Your task to perform on an android device: add a label to a message in the gmail app Image 0: 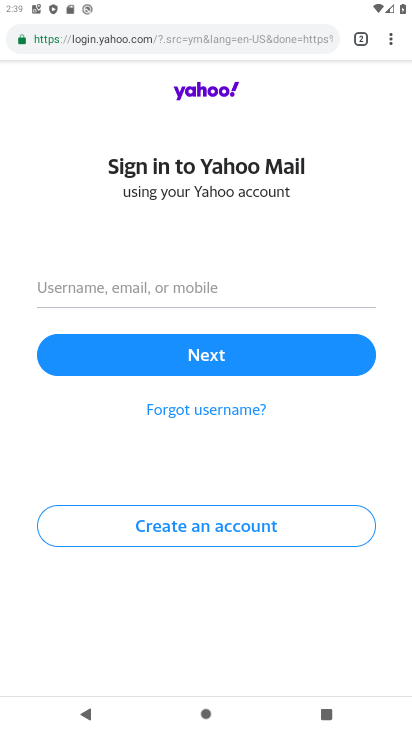
Step 0: press home button
Your task to perform on an android device: add a label to a message in the gmail app Image 1: 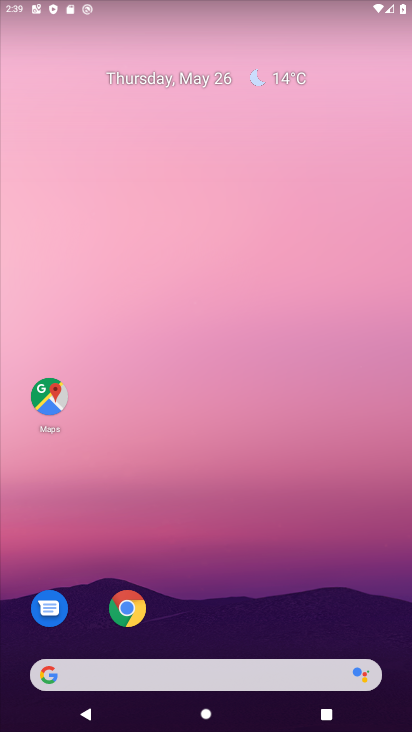
Step 1: drag from (334, 574) to (376, 55)
Your task to perform on an android device: add a label to a message in the gmail app Image 2: 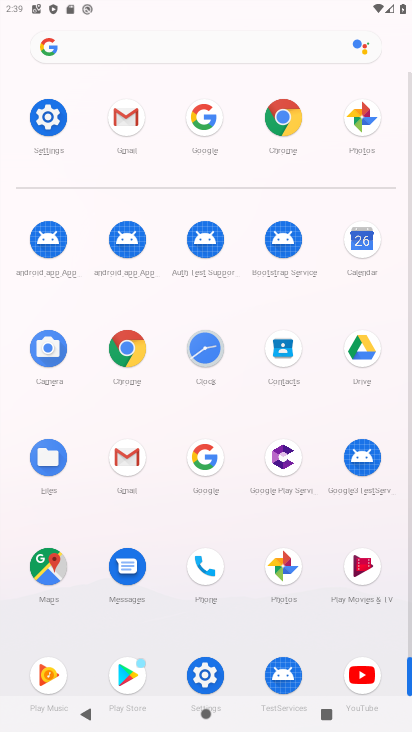
Step 2: click (132, 109)
Your task to perform on an android device: add a label to a message in the gmail app Image 3: 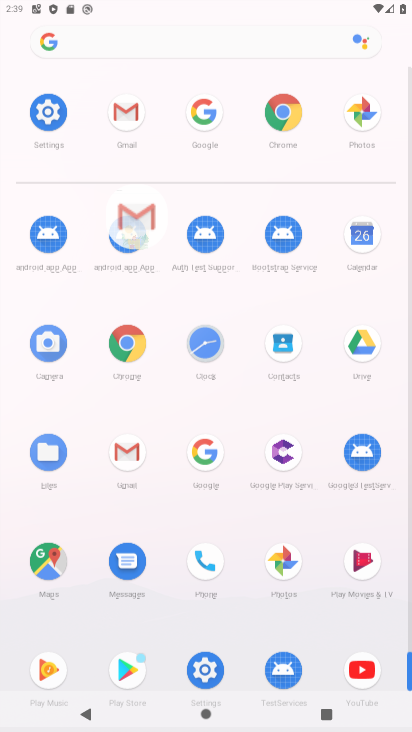
Step 3: click (132, 109)
Your task to perform on an android device: add a label to a message in the gmail app Image 4: 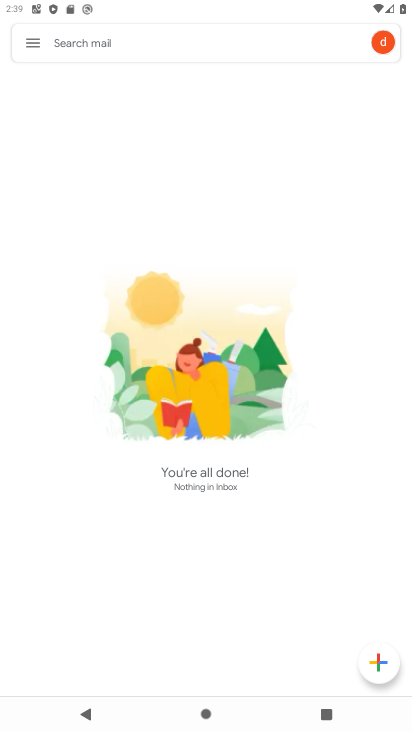
Step 4: task complete